Your task to perform on an android device: toggle data saver in the chrome app Image 0: 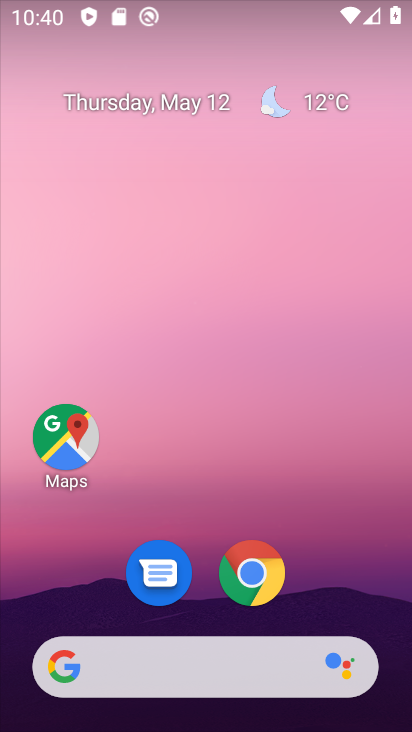
Step 0: click (270, 567)
Your task to perform on an android device: toggle data saver in the chrome app Image 1: 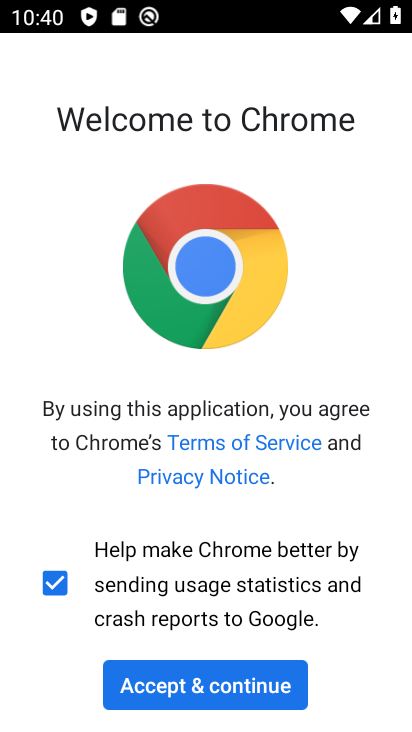
Step 1: click (203, 695)
Your task to perform on an android device: toggle data saver in the chrome app Image 2: 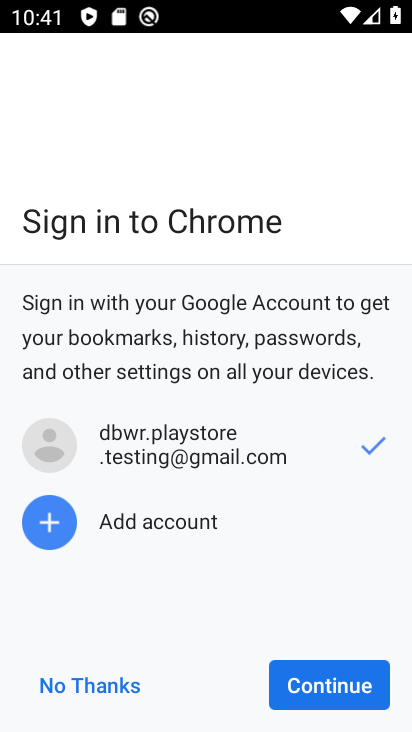
Step 2: click (345, 696)
Your task to perform on an android device: toggle data saver in the chrome app Image 3: 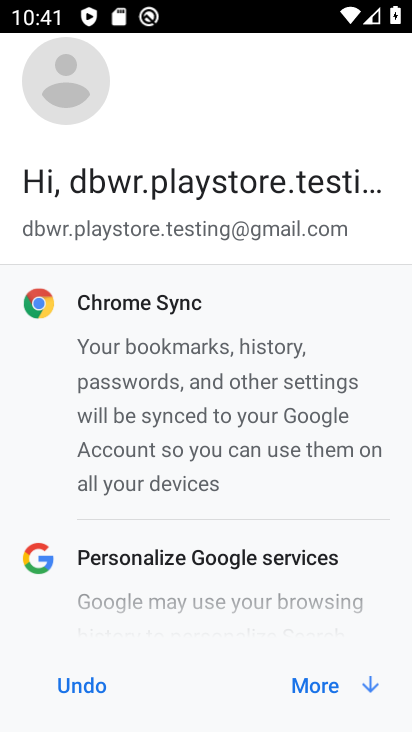
Step 3: click (305, 701)
Your task to perform on an android device: toggle data saver in the chrome app Image 4: 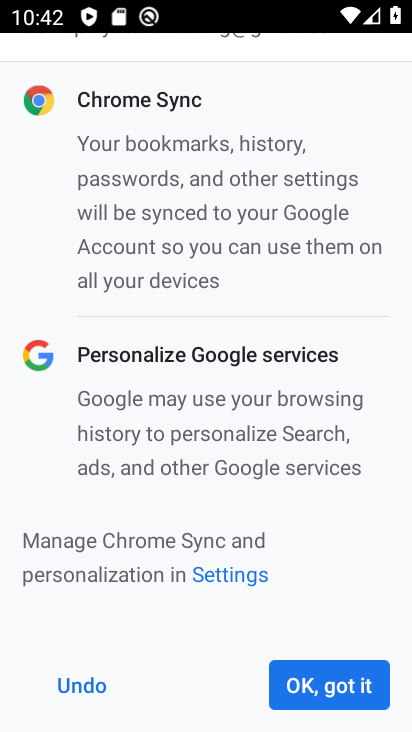
Step 4: click (305, 702)
Your task to perform on an android device: toggle data saver in the chrome app Image 5: 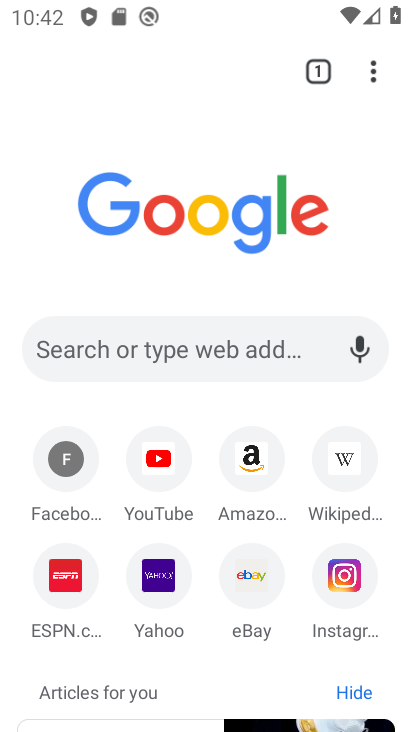
Step 5: click (367, 69)
Your task to perform on an android device: toggle data saver in the chrome app Image 6: 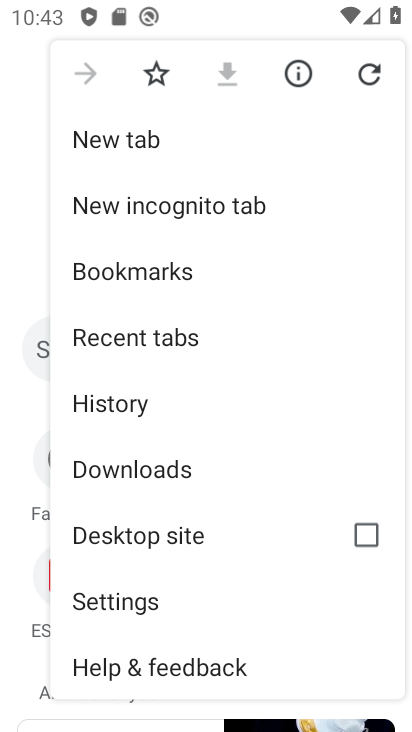
Step 6: click (144, 613)
Your task to perform on an android device: toggle data saver in the chrome app Image 7: 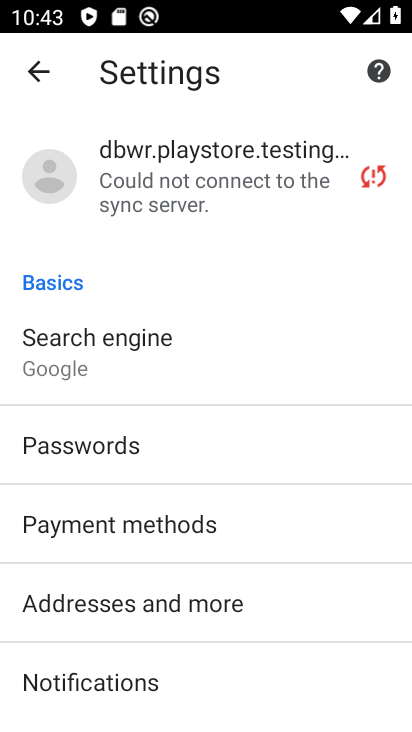
Step 7: drag from (182, 623) to (49, 74)
Your task to perform on an android device: toggle data saver in the chrome app Image 8: 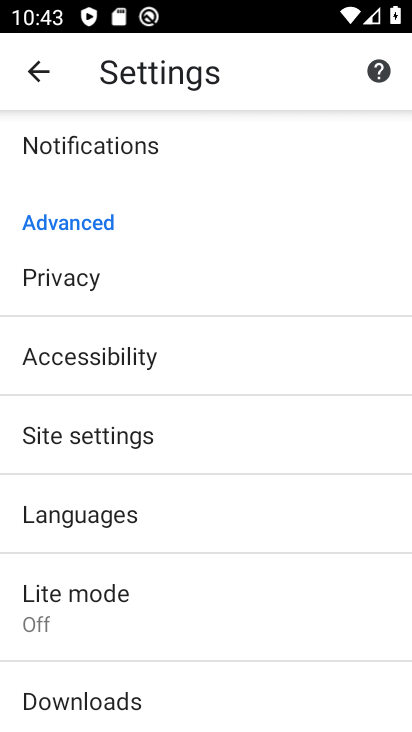
Step 8: click (106, 615)
Your task to perform on an android device: toggle data saver in the chrome app Image 9: 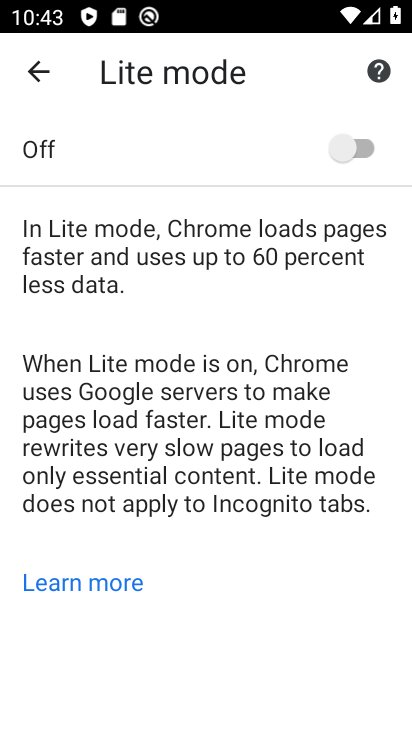
Step 9: click (349, 144)
Your task to perform on an android device: toggle data saver in the chrome app Image 10: 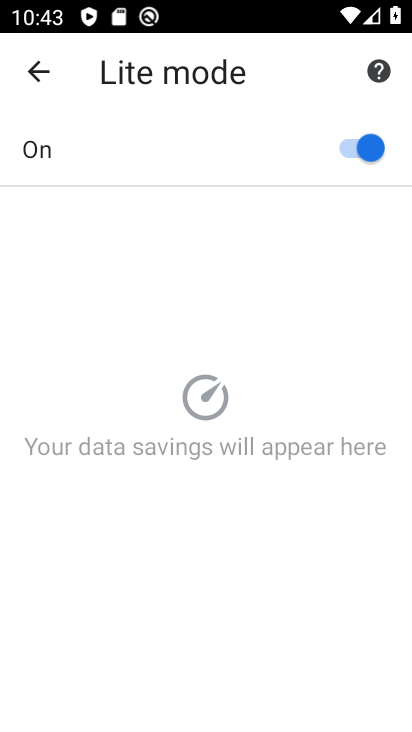
Step 10: task complete